Your task to perform on an android device: Open the map Image 0: 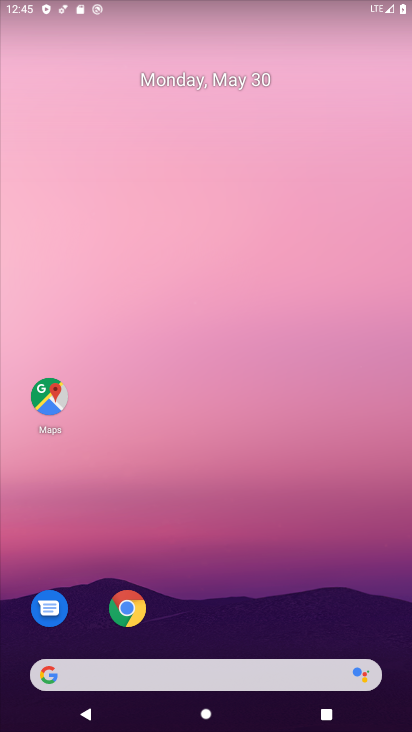
Step 0: click (43, 394)
Your task to perform on an android device: Open the map Image 1: 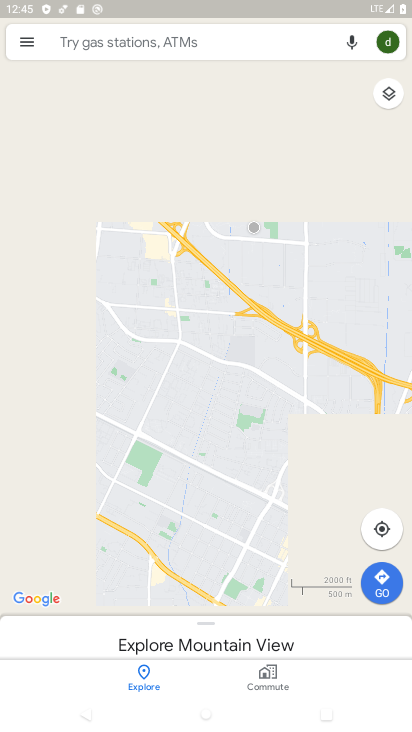
Step 1: task complete